Your task to perform on an android device: What is the recent news? Image 0: 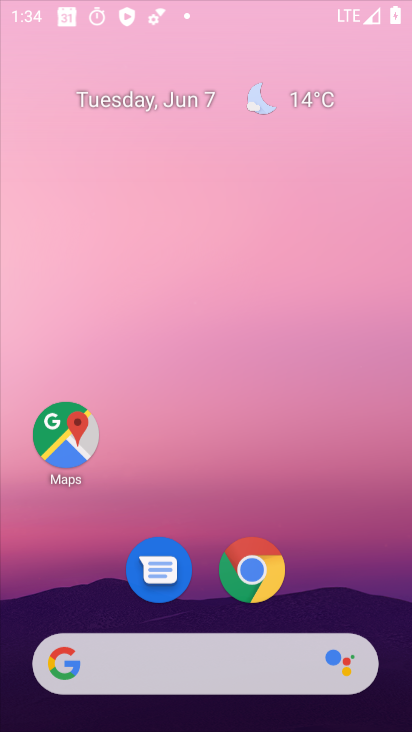
Step 0: press home button
Your task to perform on an android device: What is the recent news? Image 1: 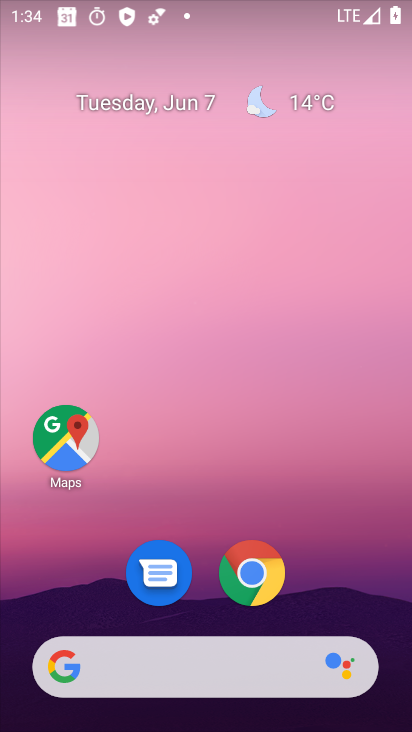
Step 1: drag from (12, 296) to (371, 343)
Your task to perform on an android device: What is the recent news? Image 2: 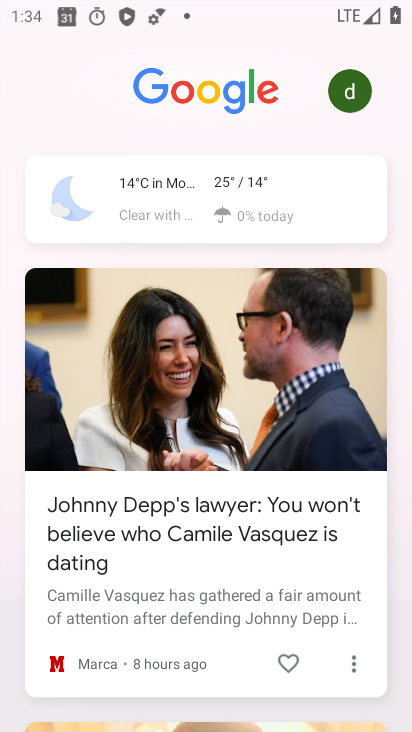
Step 2: drag from (200, 586) to (276, 92)
Your task to perform on an android device: What is the recent news? Image 3: 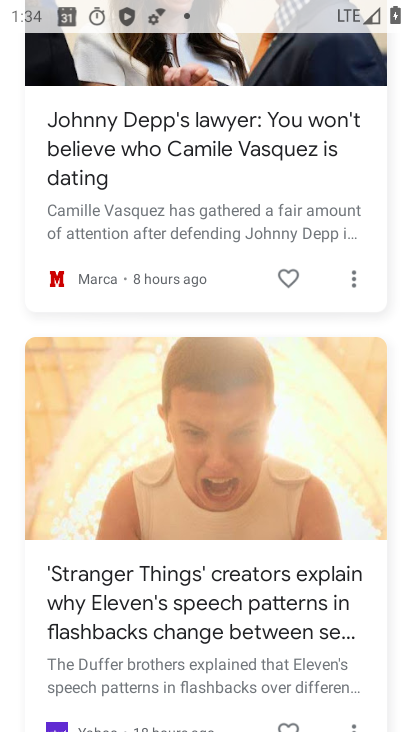
Step 3: click (225, 665)
Your task to perform on an android device: What is the recent news? Image 4: 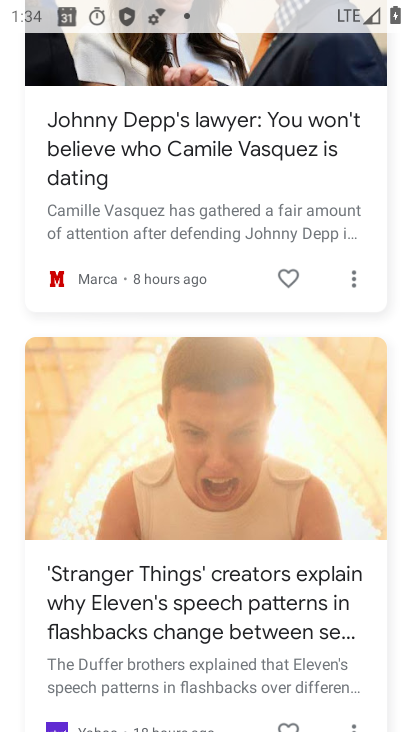
Step 4: task complete